Your task to perform on an android device: Open Android settings Image 0: 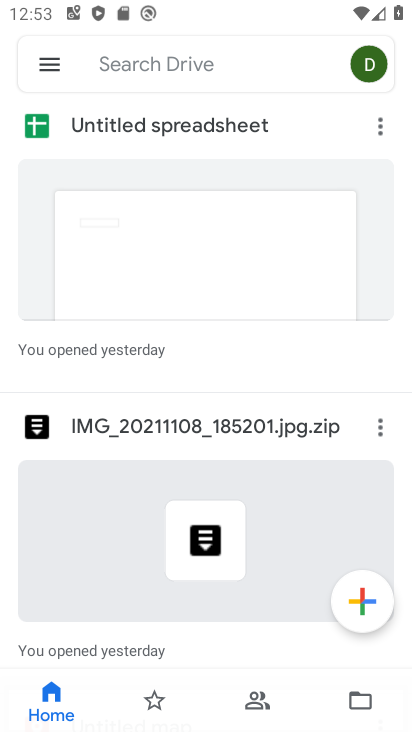
Step 0: press home button
Your task to perform on an android device: Open Android settings Image 1: 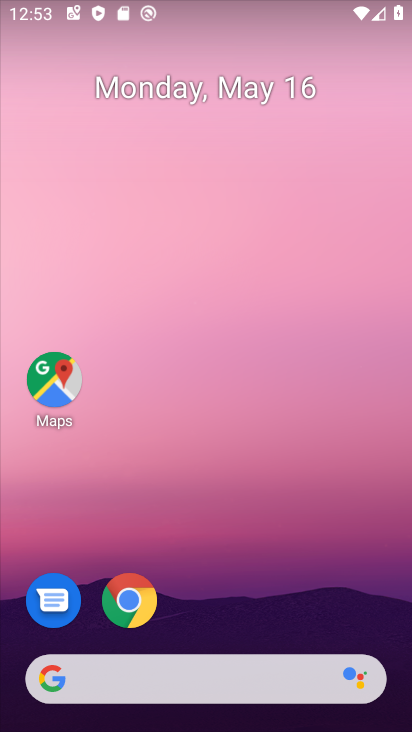
Step 1: drag from (239, 592) to (232, 103)
Your task to perform on an android device: Open Android settings Image 2: 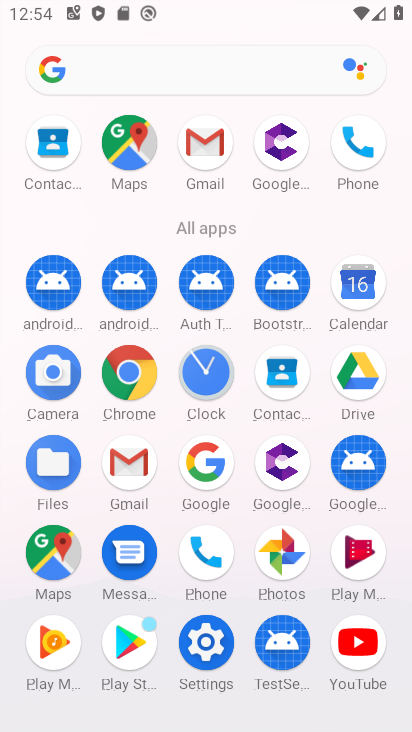
Step 2: click (215, 632)
Your task to perform on an android device: Open Android settings Image 3: 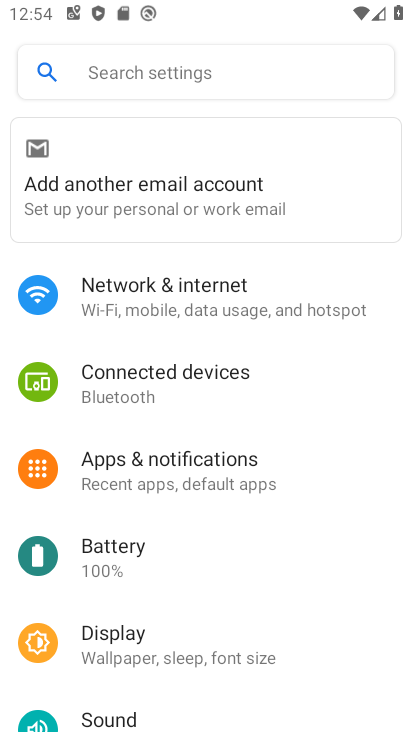
Step 3: drag from (200, 615) to (235, 300)
Your task to perform on an android device: Open Android settings Image 4: 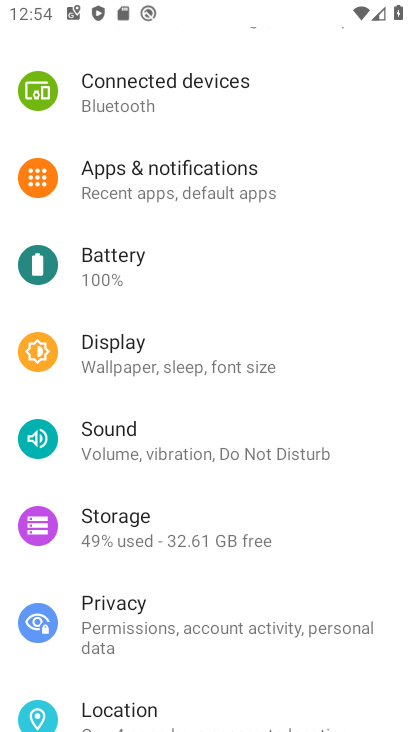
Step 4: drag from (177, 663) to (216, 295)
Your task to perform on an android device: Open Android settings Image 5: 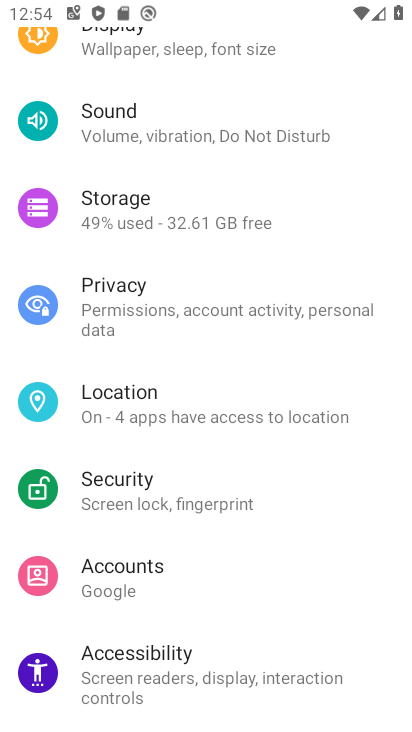
Step 5: drag from (155, 695) to (166, 374)
Your task to perform on an android device: Open Android settings Image 6: 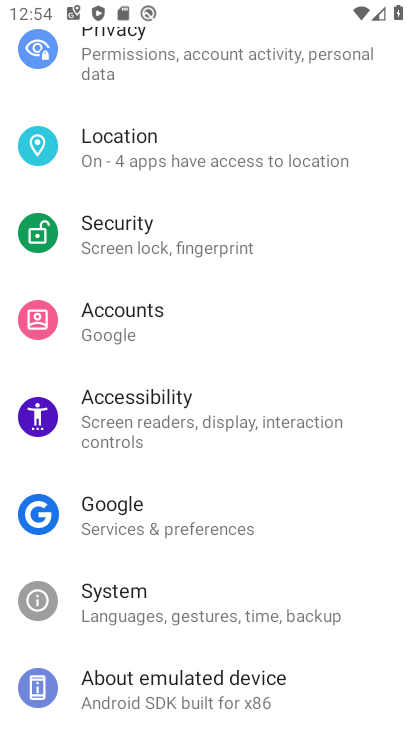
Step 6: click (174, 694)
Your task to perform on an android device: Open Android settings Image 7: 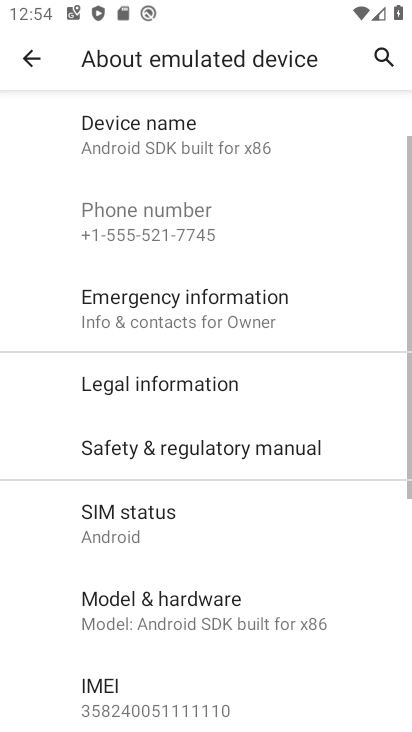
Step 7: drag from (197, 629) to (223, 191)
Your task to perform on an android device: Open Android settings Image 8: 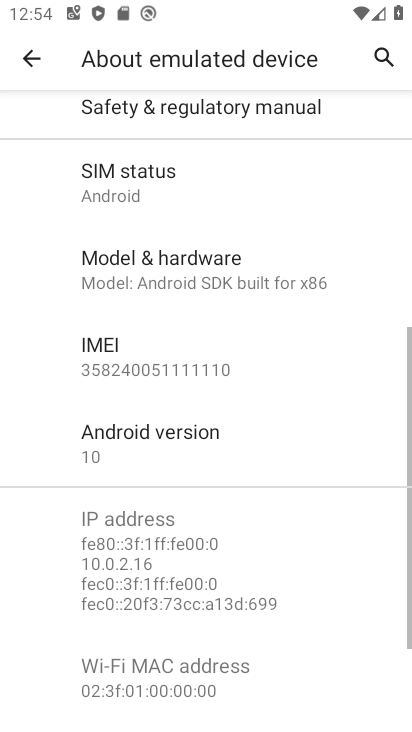
Step 8: click (175, 449)
Your task to perform on an android device: Open Android settings Image 9: 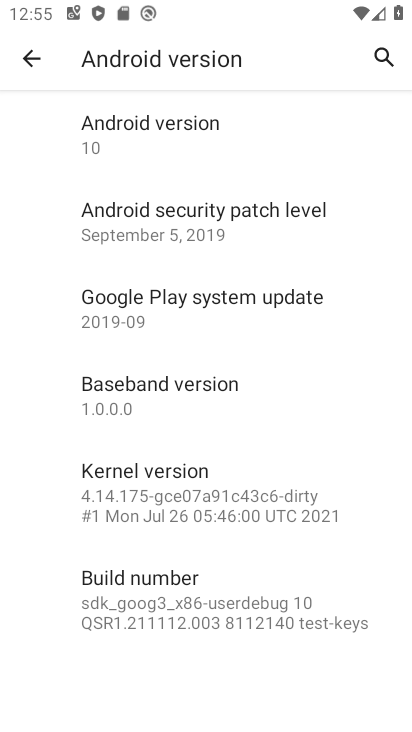
Step 9: task complete